Your task to perform on an android device: empty trash in the gmail app Image 0: 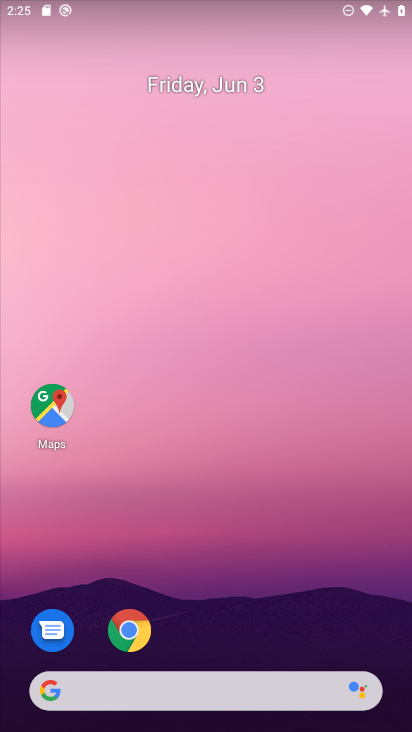
Step 0: drag from (215, 727) to (186, 111)
Your task to perform on an android device: empty trash in the gmail app Image 1: 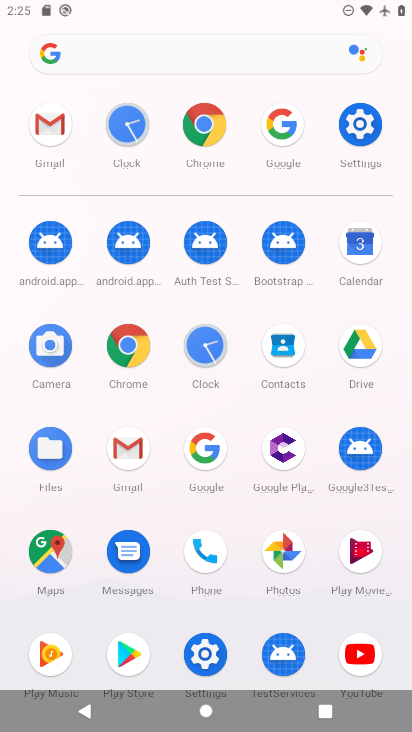
Step 1: click (132, 451)
Your task to perform on an android device: empty trash in the gmail app Image 2: 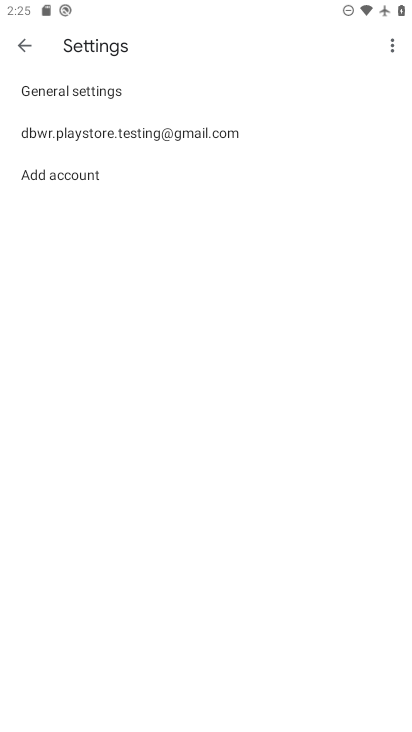
Step 2: click (24, 45)
Your task to perform on an android device: empty trash in the gmail app Image 3: 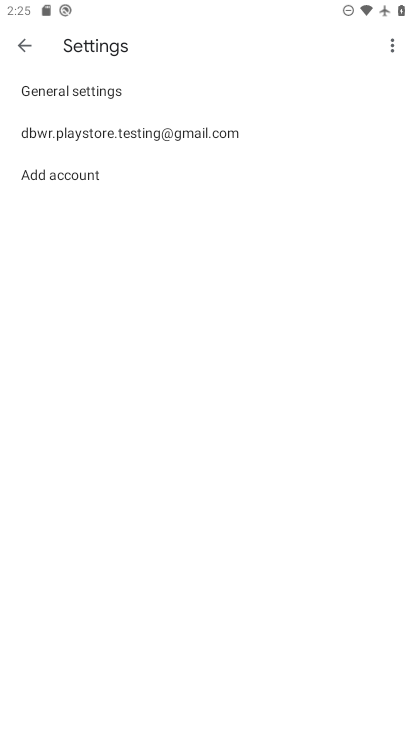
Step 3: click (28, 43)
Your task to perform on an android device: empty trash in the gmail app Image 4: 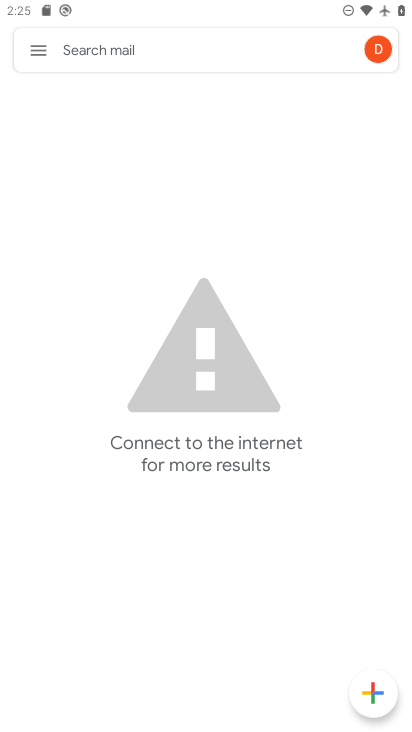
Step 4: click (38, 50)
Your task to perform on an android device: empty trash in the gmail app Image 5: 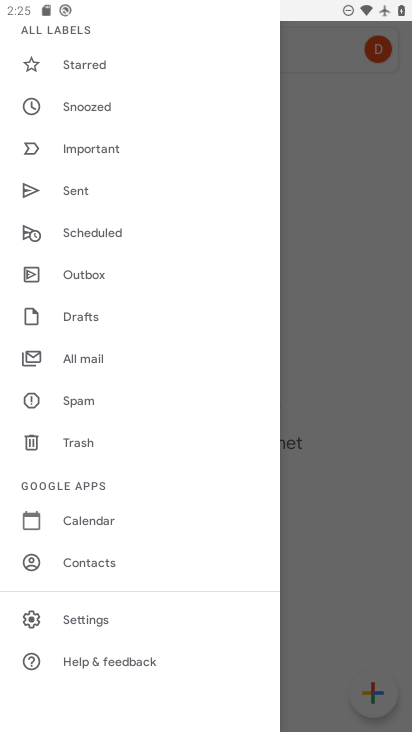
Step 5: click (82, 438)
Your task to perform on an android device: empty trash in the gmail app Image 6: 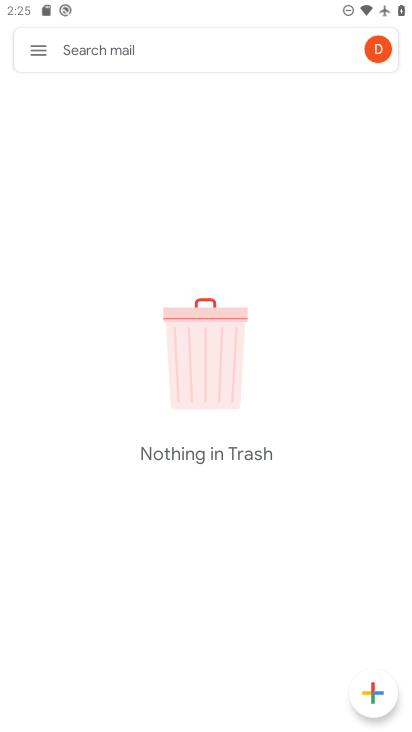
Step 6: task complete